Your task to perform on an android device: Open location settings Image 0: 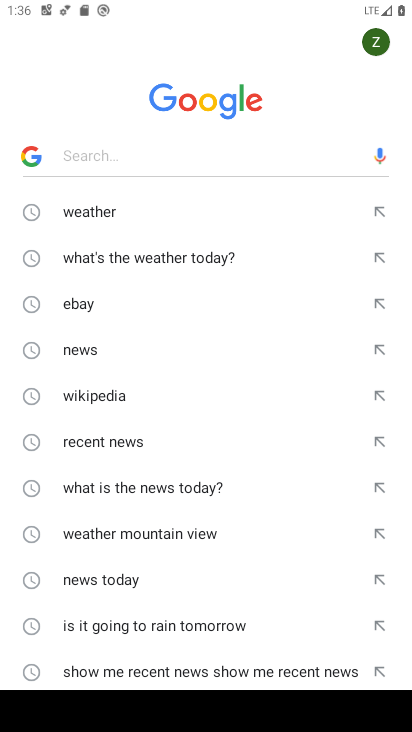
Step 0: press home button
Your task to perform on an android device: Open location settings Image 1: 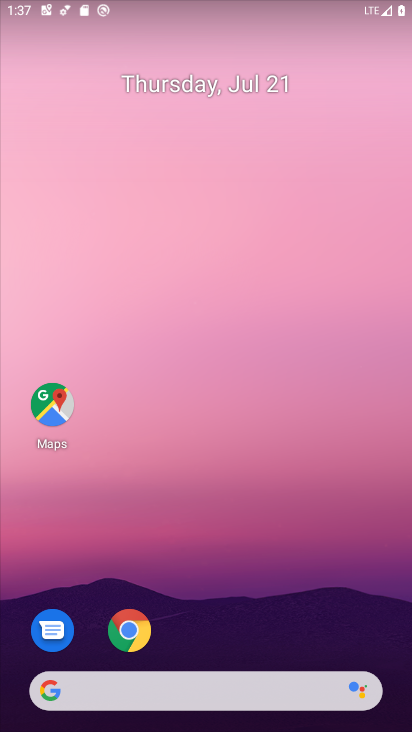
Step 1: drag from (239, 568) to (19, 8)
Your task to perform on an android device: Open location settings Image 2: 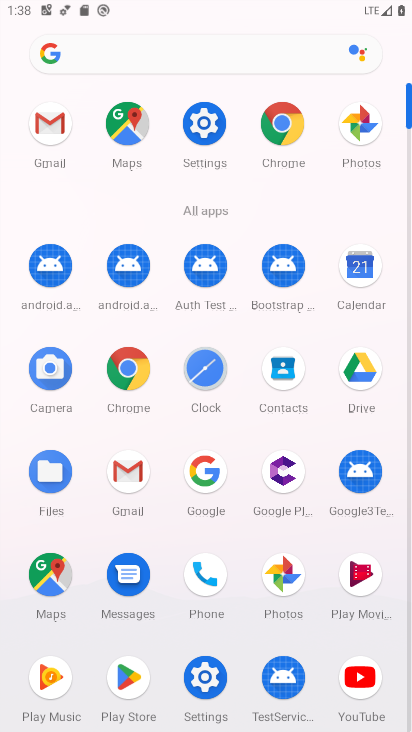
Step 2: click (209, 691)
Your task to perform on an android device: Open location settings Image 3: 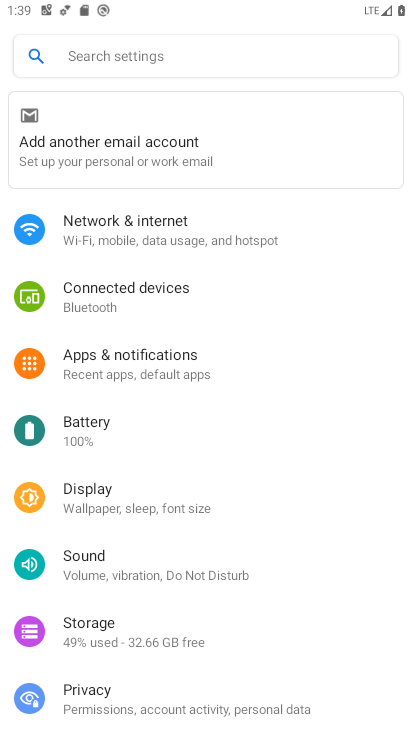
Step 3: drag from (253, 524) to (269, 226)
Your task to perform on an android device: Open location settings Image 4: 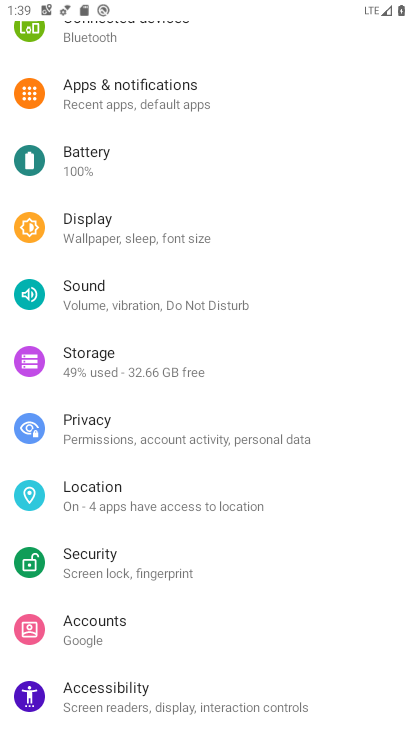
Step 4: click (115, 485)
Your task to perform on an android device: Open location settings Image 5: 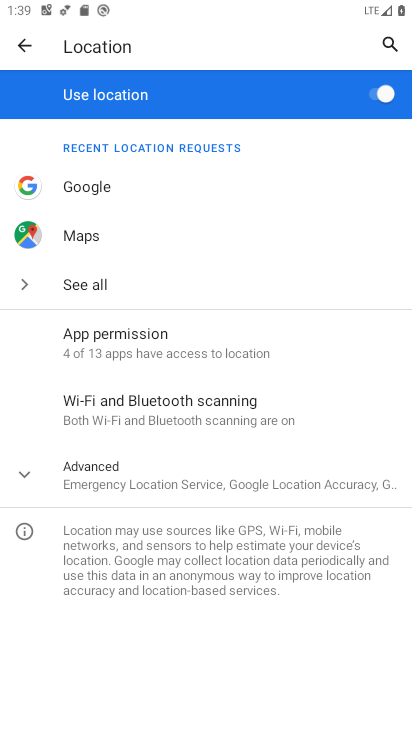
Step 5: task complete